Your task to perform on an android device: Go to accessibility settings Image 0: 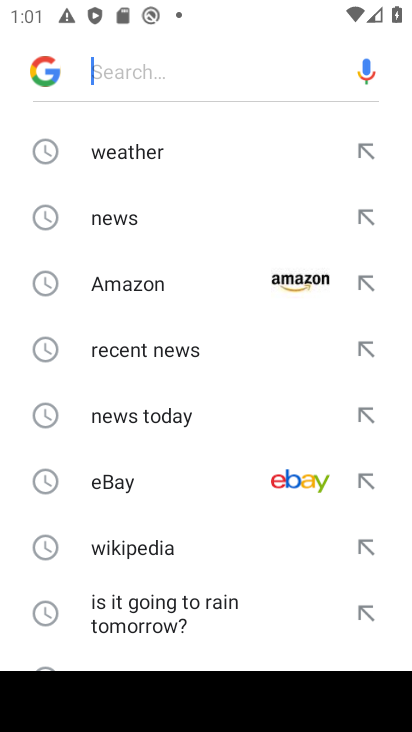
Step 0: press home button
Your task to perform on an android device: Go to accessibility settings Image 1: 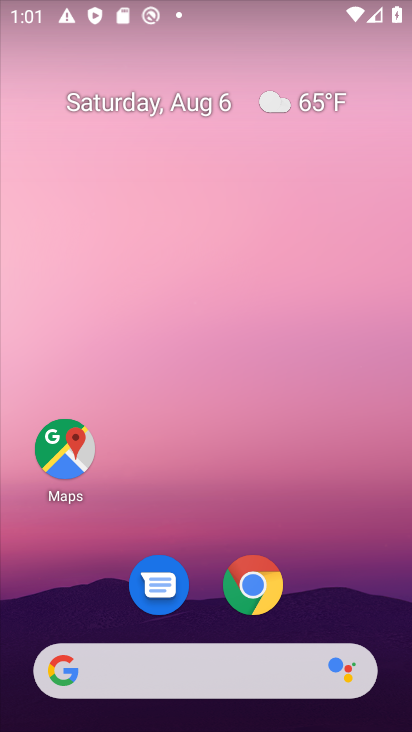
Step 1: drag from (209, 490) to (239, 0)
Your task to perform on an android device: Go to accessibility settings Image 2: 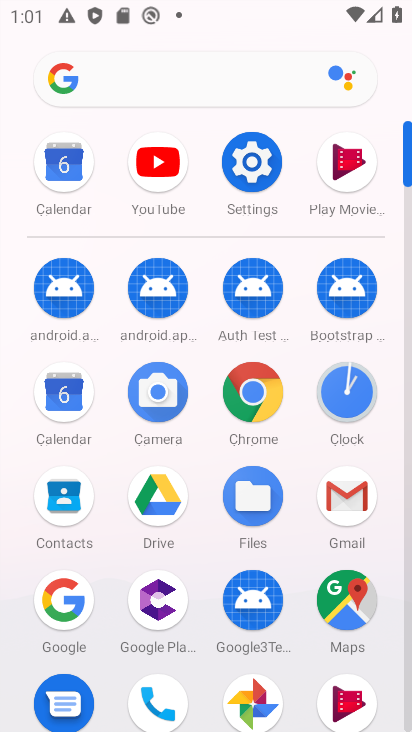
Step 2: click (252, 160)
Your task to perform on an android device: Go to accessibility settings Image 3: 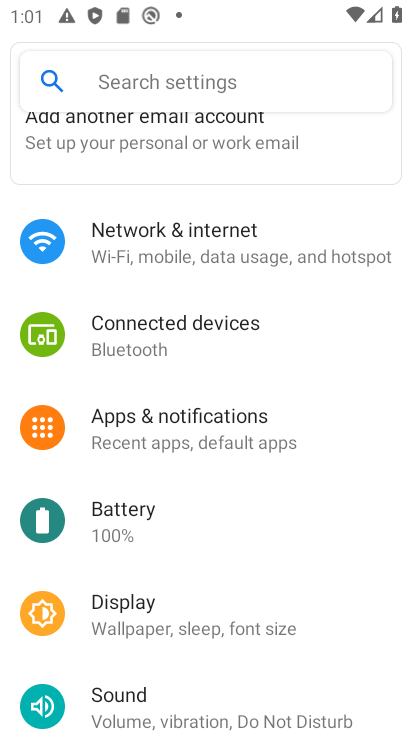
Step 3: drag from (182, 679) to (170, 0)
Your task to perform on an android device: Go to accessibility settings Image 4: 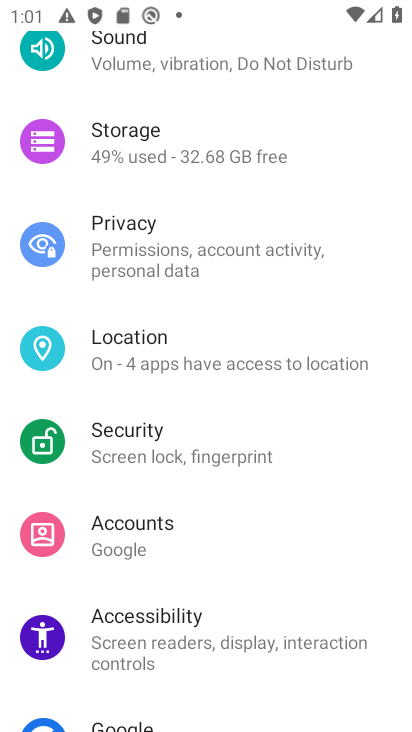
Step 4: click (214, 627)
Your task to perform on an android device: Go to accessibility settings Image 5: 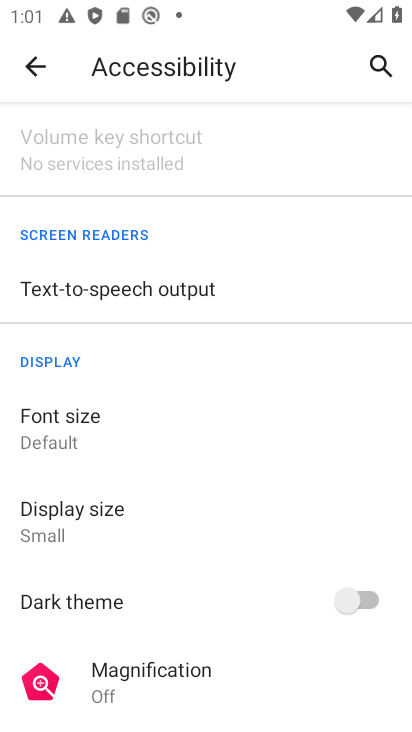
Step 5: task complete